Your task to perform on an android device: turn on the 12-hour format for clock Image 0: 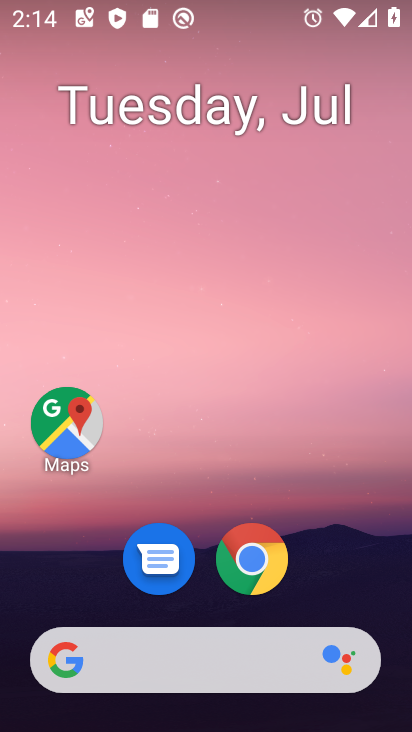
Step 0: press home button
Your task to perform on an android device: turn on the 12-hour format for clock Image 1: 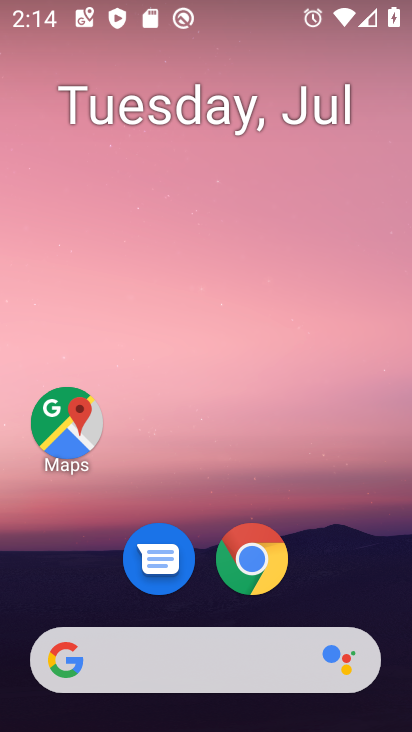
Step 1: drag from (349, 543) to (394, 145)
Your task to perform on an android device: turn on the 12-hour format for clock Image 2: 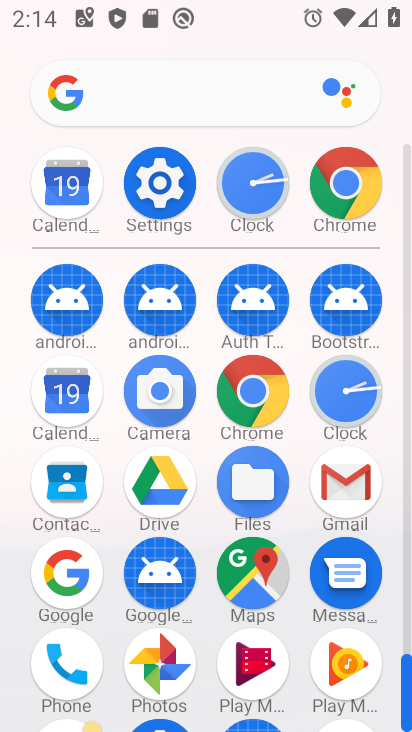
Step 2: click (355, 385)
Your task to perform on an android device: turn on the 12-hour format for clock Image 3: 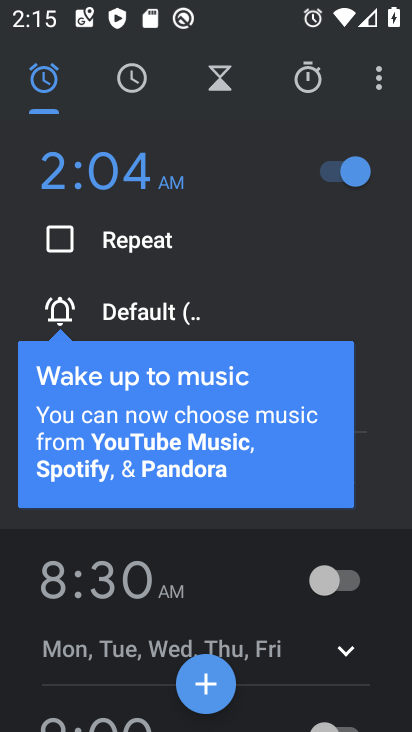
Step 3: click (381, 86)
Your task to perform on an android device: turn on the 12-hour format for clock Image 4: 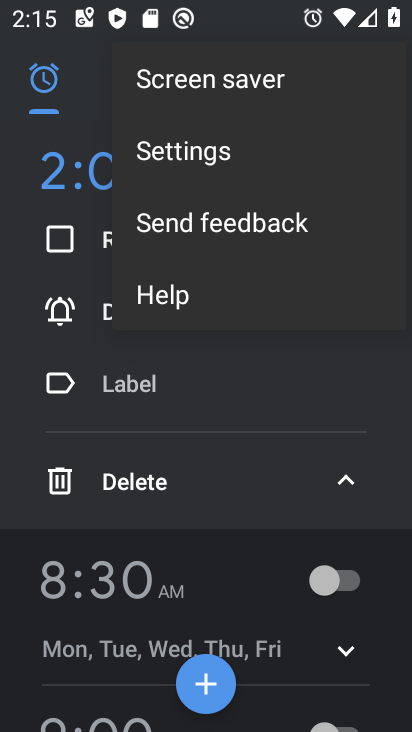
Step 4: click (219, 158)
Your task to perform on an android device: turn on the 12-hour format for clock Image 5: 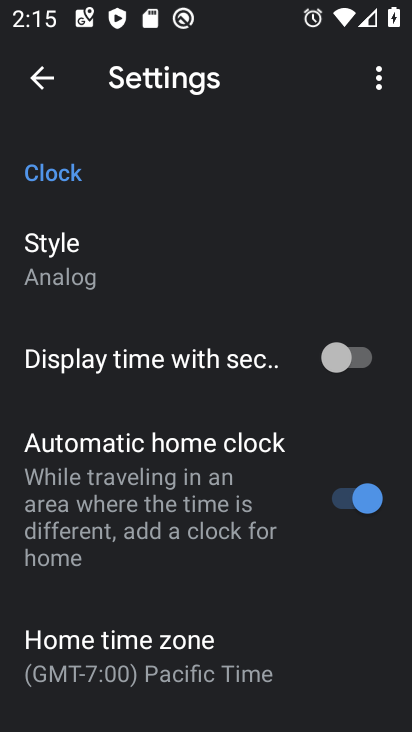
Step 5: drag from (320, 564) to (329, 515)
Your task to perform on an android device: turn on the 12-hour format for clock Image 6: 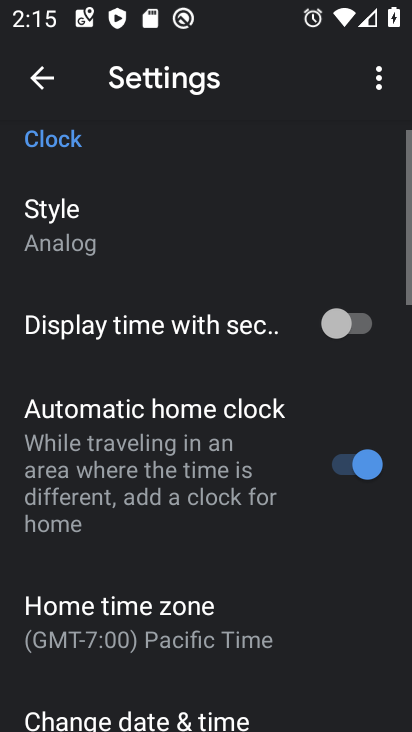
Step 6: drag from (335, 577) to (335, 490)
Your task to perform on an android device: turn on the 12-hour format for clock Image 7: 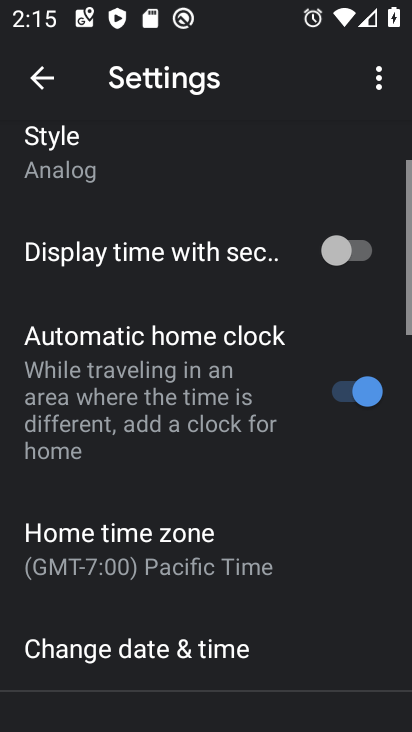
Step 7: drag from (341, 586) to (337, 492)
Your task to perform on an android device: turn on the 12-hour format for clock Image 8: 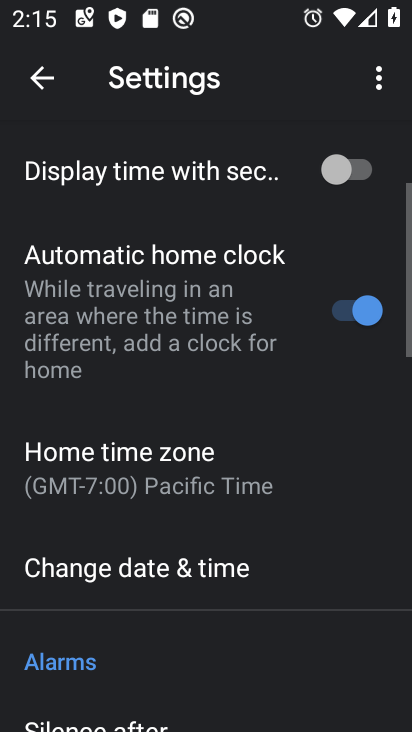
Step 8: drag from (327, 570) to (324, 482)
Your task to perform on an android device: turn on the 12-hour format for clock Image 9: 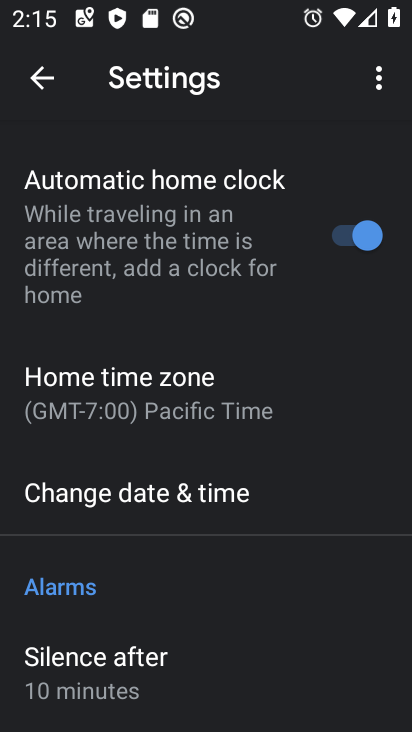
Step 9: drag from (326, 570) to (320, 469)
Your task to perform on an android device: turn on the 12-hour format for clock Image 10: 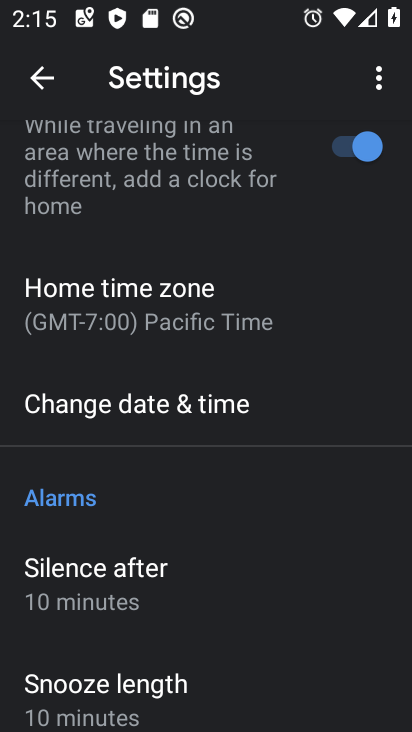
Step 10: click (294, 434)
Your task to perform on an android device: turn on the 12-hour format for clock Image 11: 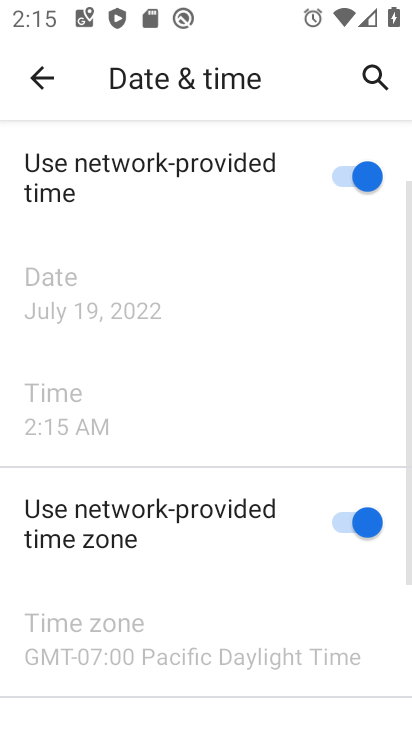
Step 11: task complete